Your task to perform on an android device: Search for the best 100% cotton t-shirts Image 0: 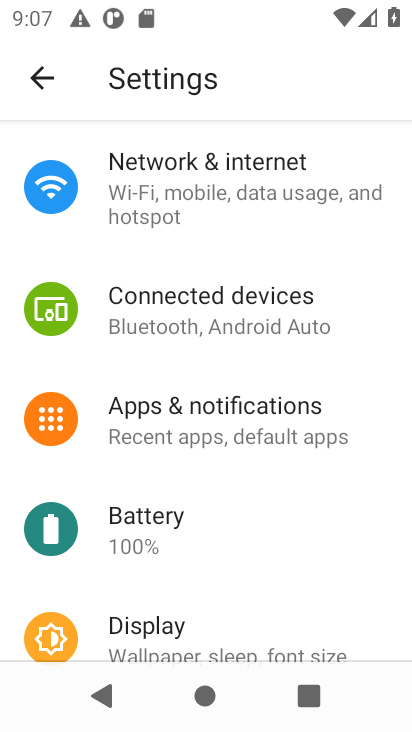
Step 0: click (271, 313)
Your task to perform on an android device: Search for the best 100% cotton t-shirts Image 1: 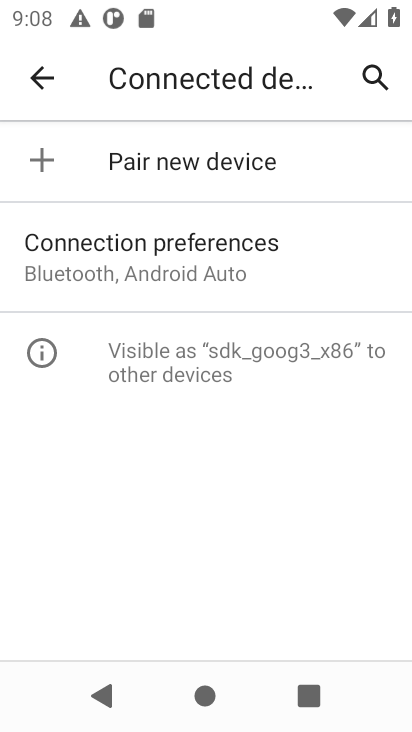
Step 1: task complete